Your task to perform on an android device: check android version Image 0: 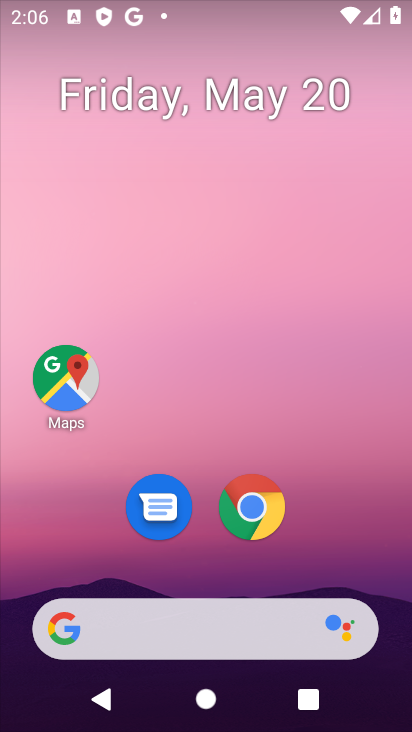
Step 0: drag from (206, 583) to (202, 81)
Your task to perform on an android device: check android version Image 1: 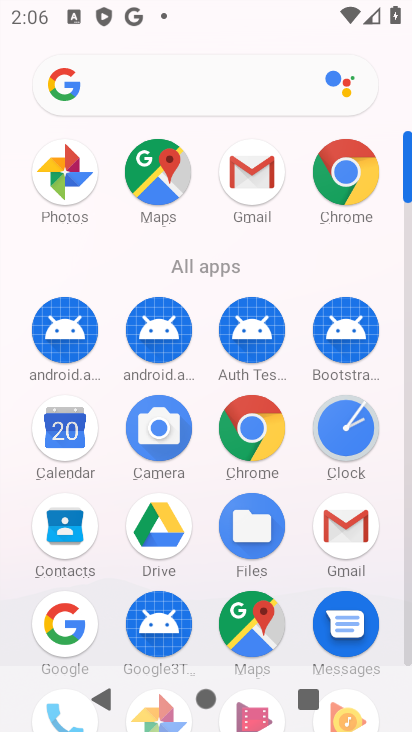
Step 1: drag from (216, 640) to (265, 154)
Your task to perform on an android device: check android version Image 2: 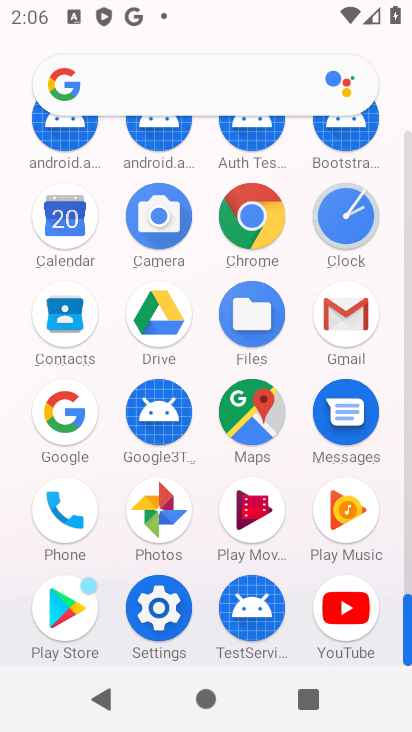
Step 2: click (139, 604)
Your task to perform on an android device: check android version Image 3: 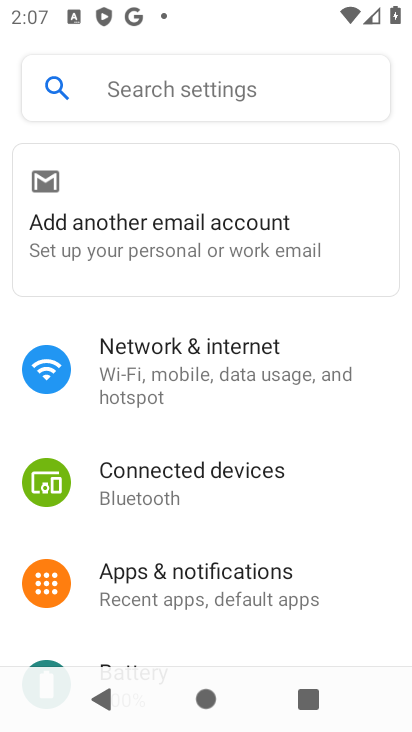
Step 3: drag from (44, 561) to (213, 69)
Your task to perform on an android device: check android version Image 4: 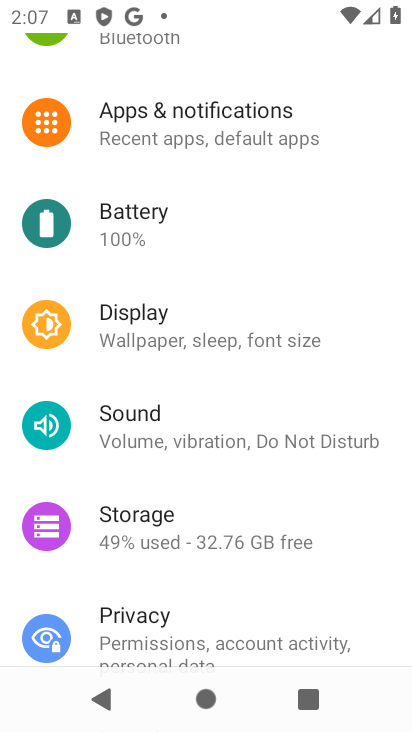
Step 4: drag from (280, 207) to (255, 11)
Your task to perform on an android device: check android version Image 5: 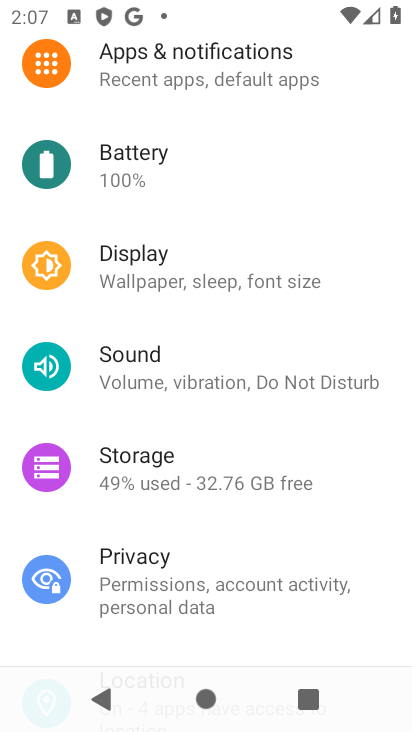
Step 5: drag from (117, 630) to (188, 336)
Your task to perform on an android device: check android version Image 6: 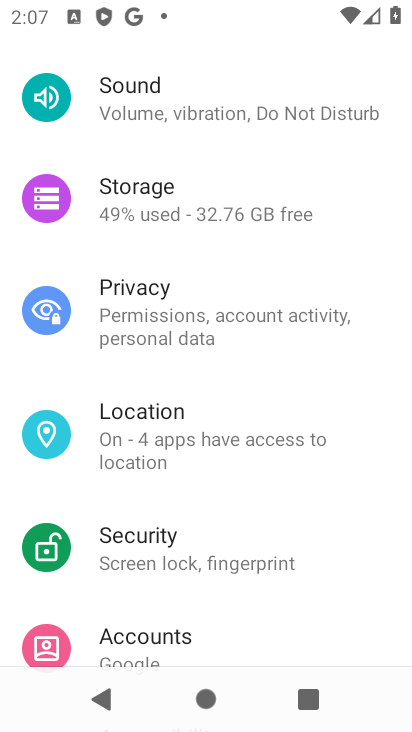
Step 6: drag from (112, 635) to (273, 117)
Your task to perform on an android device: check android version Image 7: 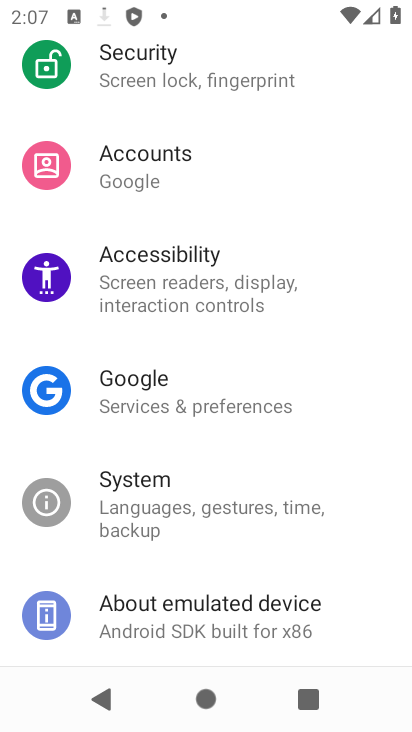
Step 7: click (106, 599)
Your task to perform on an android device: check android version Image 8: 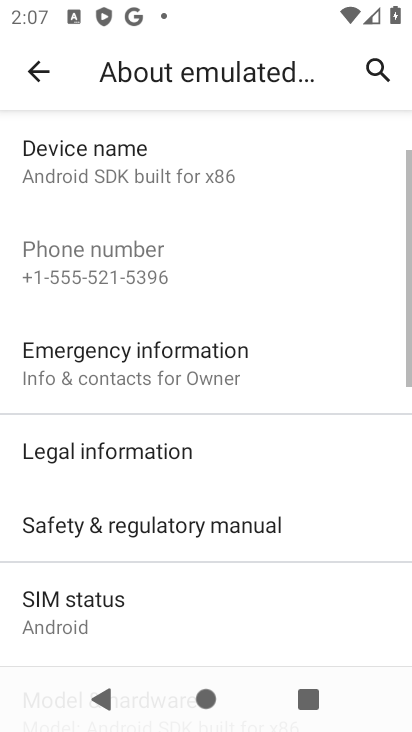
Step 8: drag from (148, 607) to (205, 214)
Your task to perform on an android device: check android version Image 9: 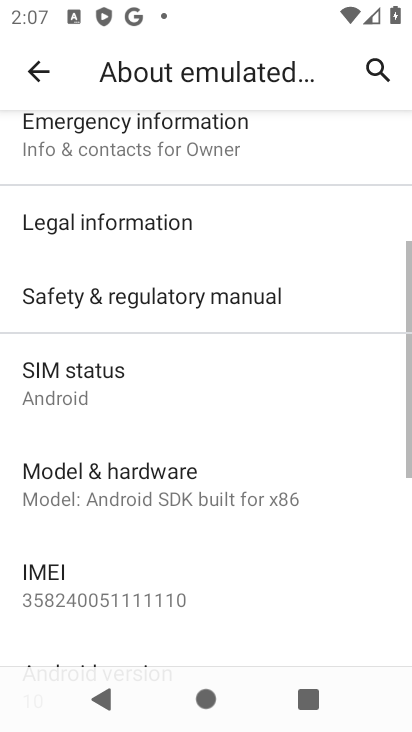
Step 9: drag from (160, 600) to (294, 124)
Your task to perform on an android device: check android version Image 10: 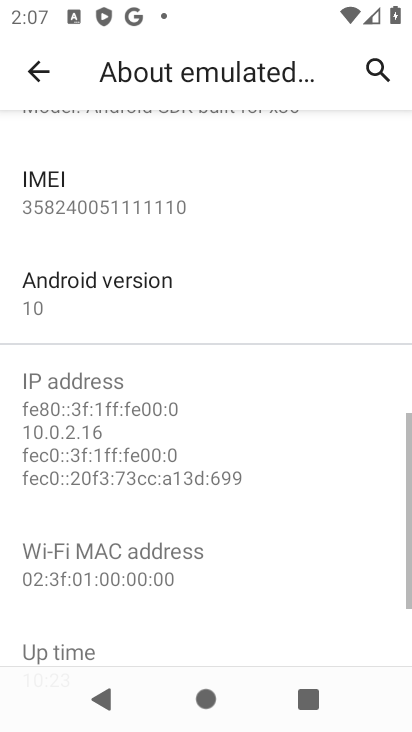
Step 10: click (108, 316)
Your task to perform on an android device: check android version Image 11: 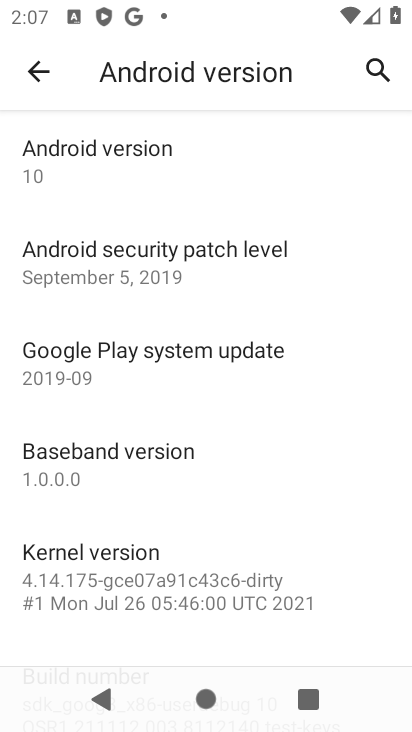
Step 11: task complete